Your task to perform on an android device: Turn off the flashlight Image 0: 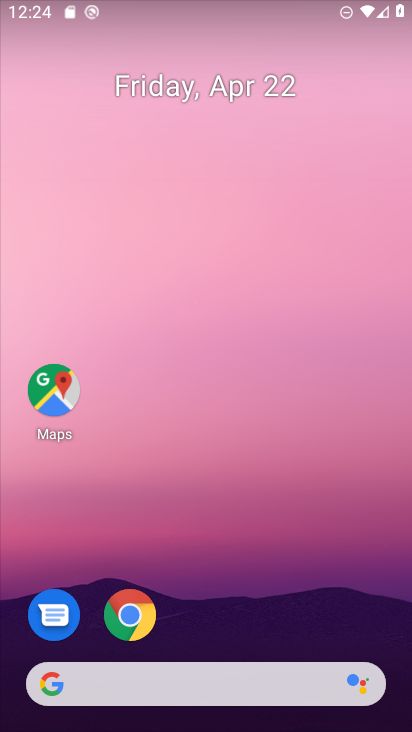
Step 0: drag from (236, 651) to (302, 95)
Your task to perform on an android device: Turn off the flashlight Image 1: 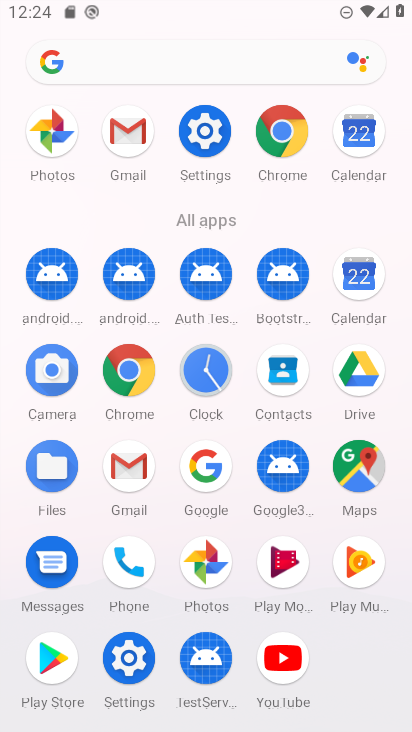
Step 1: click (222, 283)
Your task to perform on an android device: Turn off the flashlight Image 2: 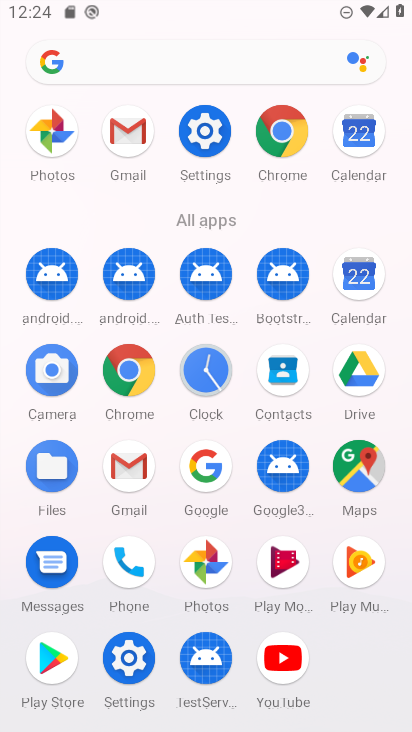
Step 2: task complete